Your task to perform on an android device: Open the calendar and show me this week's events Image 0: 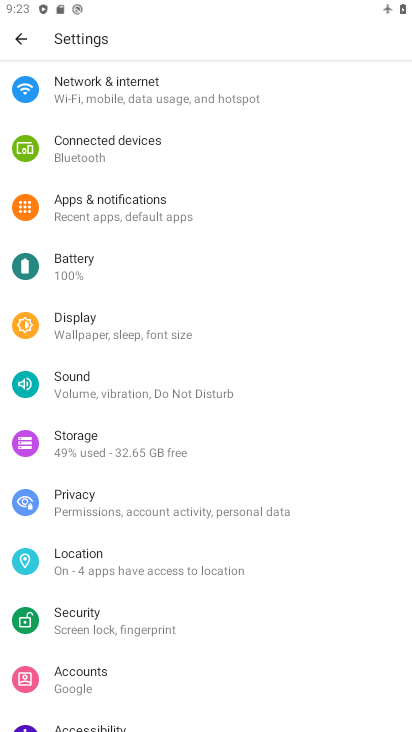
Step 0: press home button
Your task to perform on an android device: Open the calendar and show me this week's events Image 1: 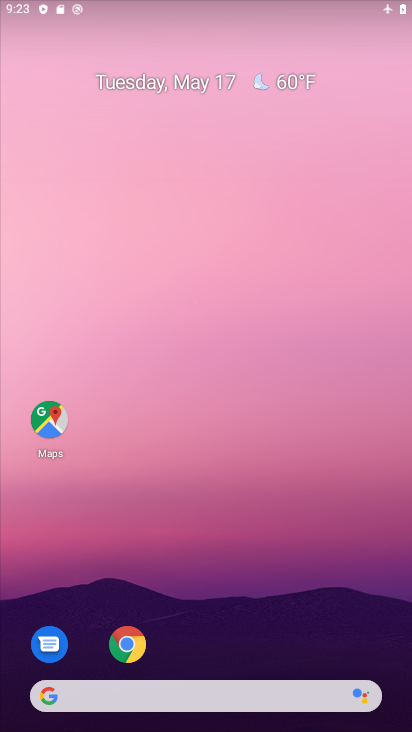
Step 1: drag from (288, 507) to (289, 153)
Your task to perform on an android device: Open the calendar and show me this week's events Image 2: 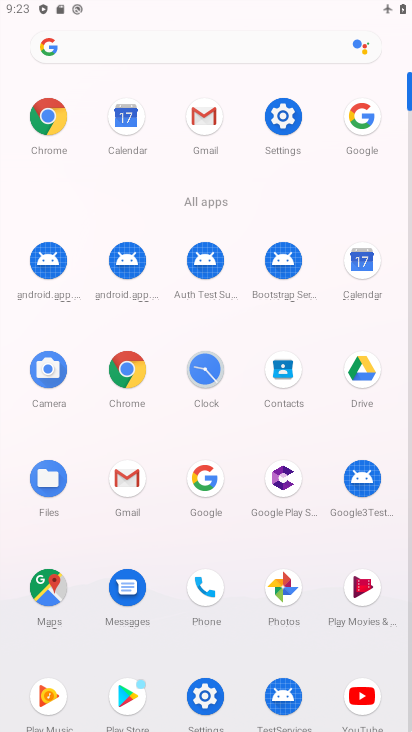
Step 2: click (358, 261)
Your task to perform on an android device: Open the calendar and show me this week's events Image 3: 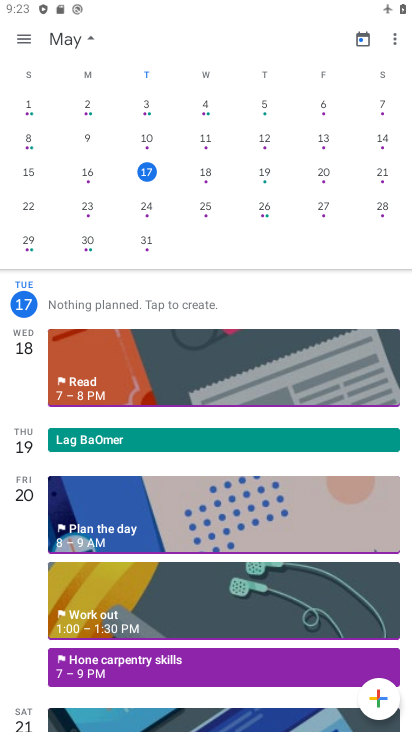
Step 3: click (208, 174)
Your task to perform on an android device: Open the calendar and show me this week's events Image 4: 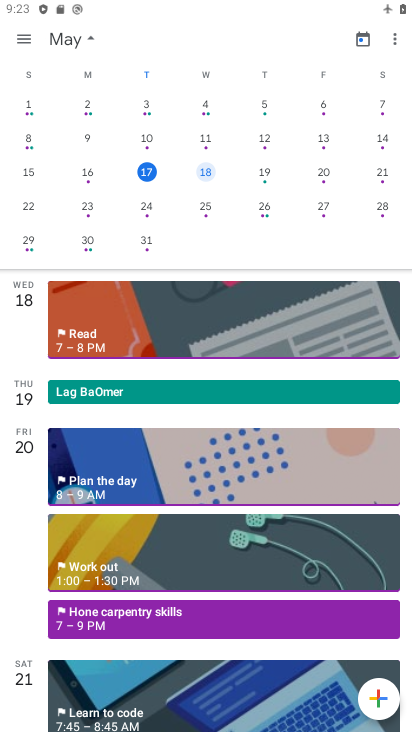
Step 4: click (260, 172)
Your task to perform on an android device: Open the calendar and show me this week's events Image 5: 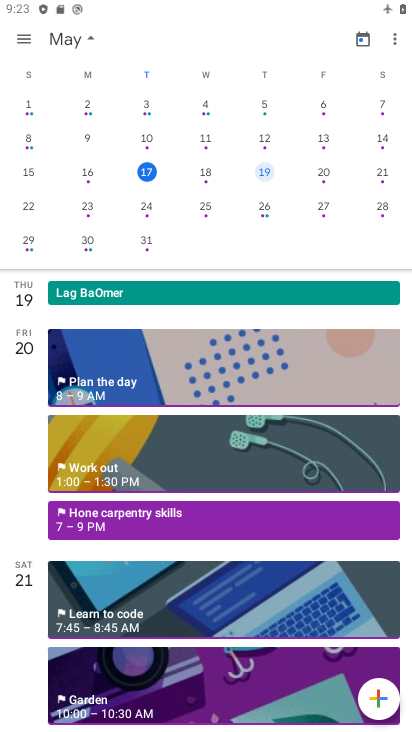
Step 5: click (327, 173)
Your task to perform on an android device: Open the calendar and show me this week's events Image 6: 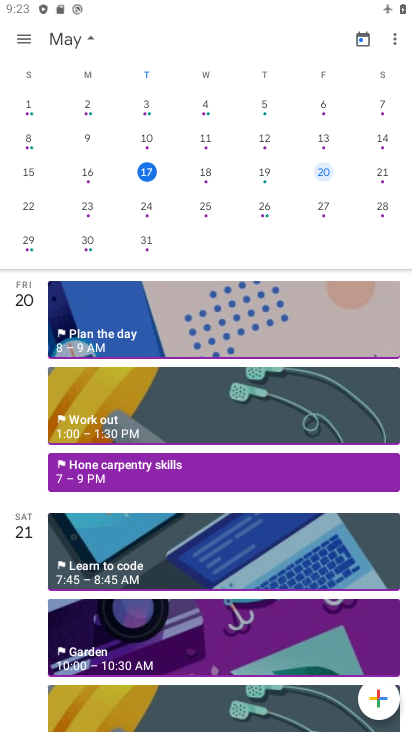
Step 6: click (385, 179)
Your task to perform on an android device: Open the calendar and show me this week's events Image 7: 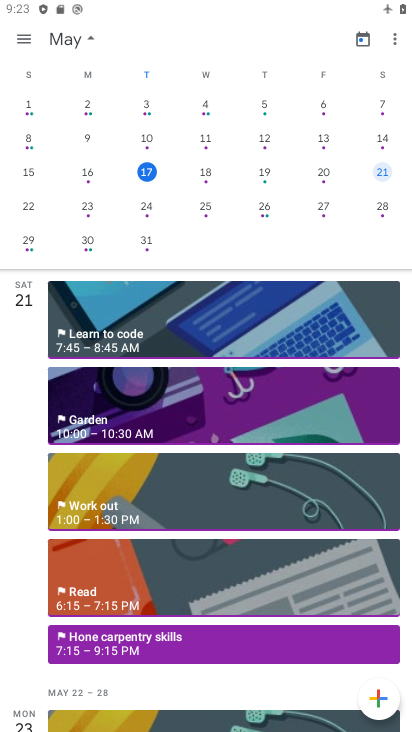
Step 7: task complete